Your task to perform on an android device: show emergency info Image 0: 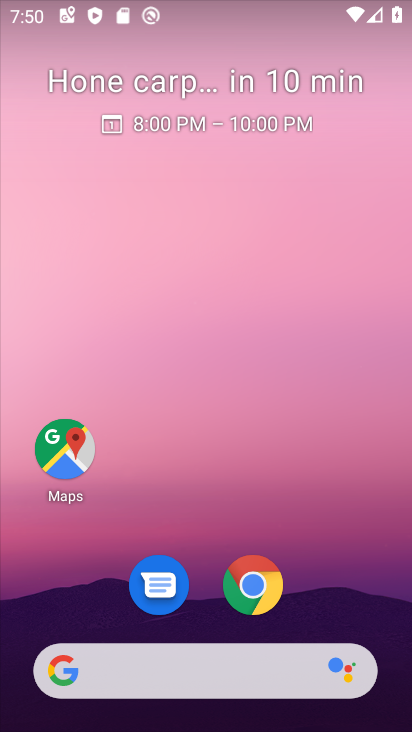
Step 0: drag from (294, 584) to (317, 81)
Your task to perform on an android device: show emergency info Image 1: 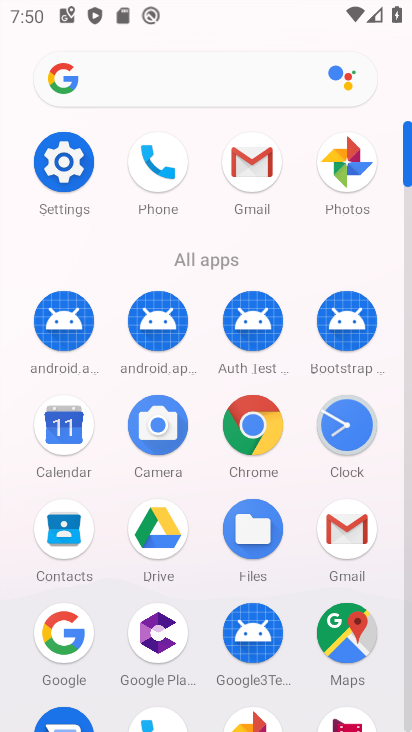
Step 1: click (71, 172)
Your task to perform on an android device: show emergency info Image 2: 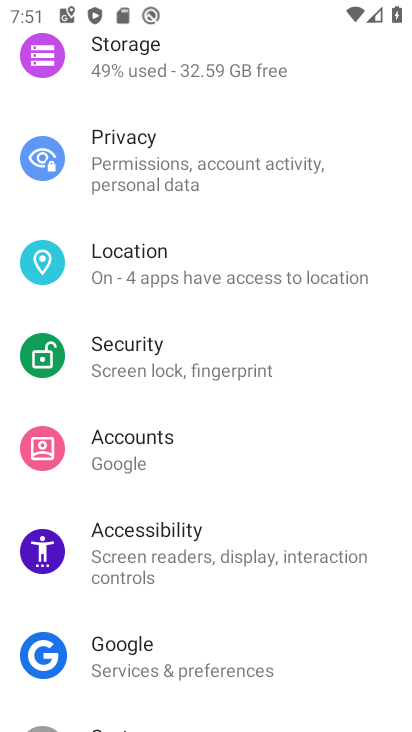
Step 2: drag from (189, 617) to (219, 399)
Your task to perform on an android device: show emergency info Image 3: 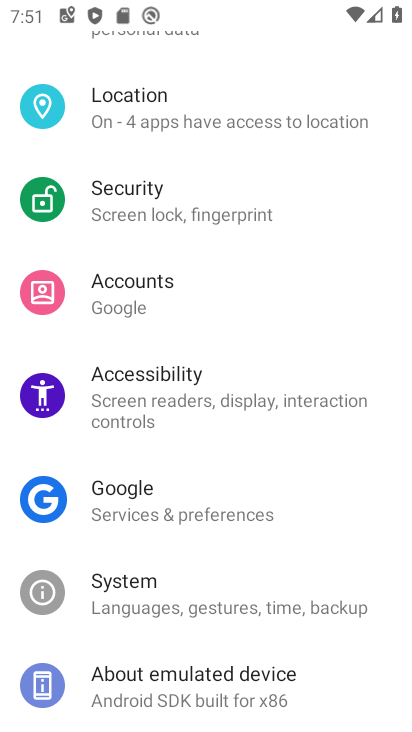
Step 3: click (152, 676)
Your task to perform on an android device: show emergency info Image 4: 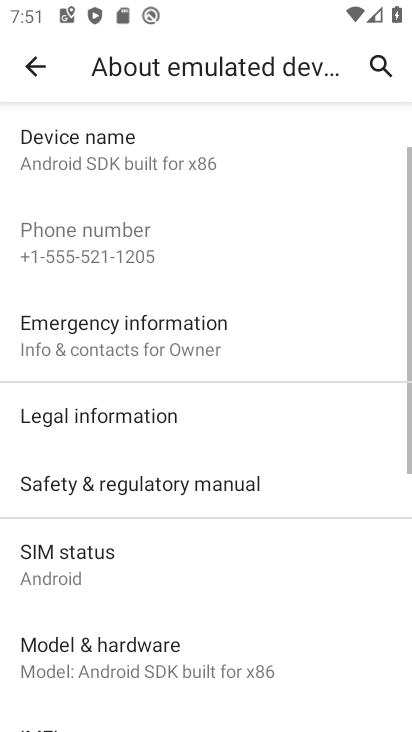
Step 4: click (200, 337)
Your task to perform on an android device: show emergency info Image 5: 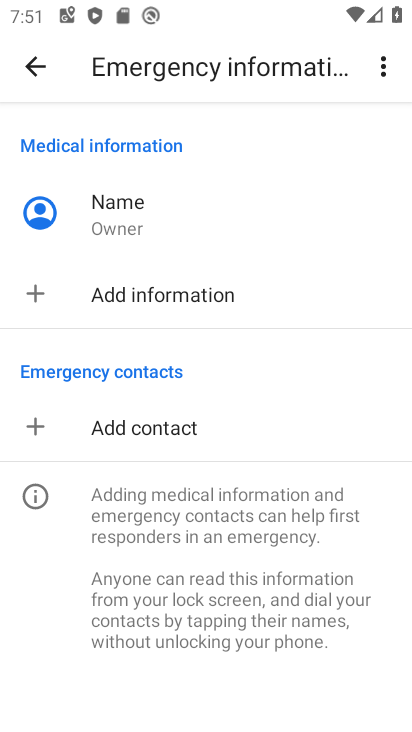
Step 5: task complete